Your task to perform on an android device: Look up the best rated headphones on Aliexpress Image 0: 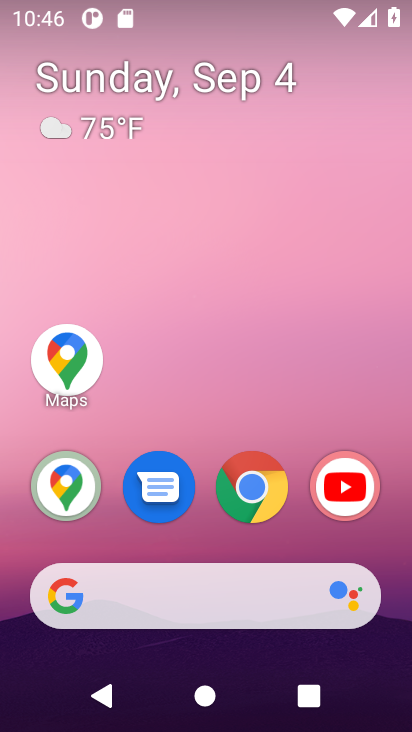
Step 0: click (330, 486)
Your task to perform on an android device: Look up the best rated headphones on Aliexpress Image 1: 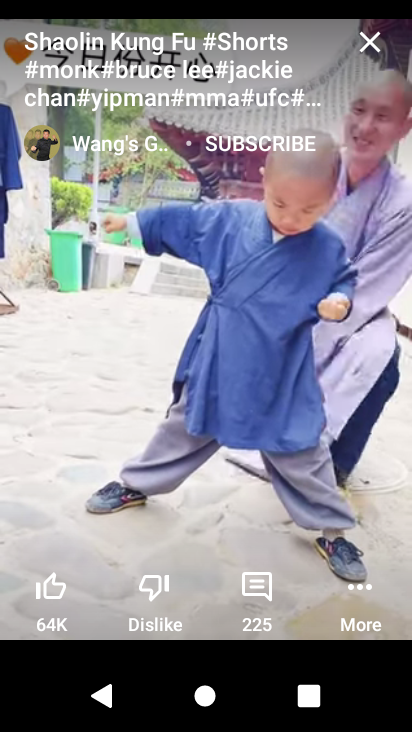
Step 1: task complete